Your task to perform on an android device: set the stopwatch Image 0: 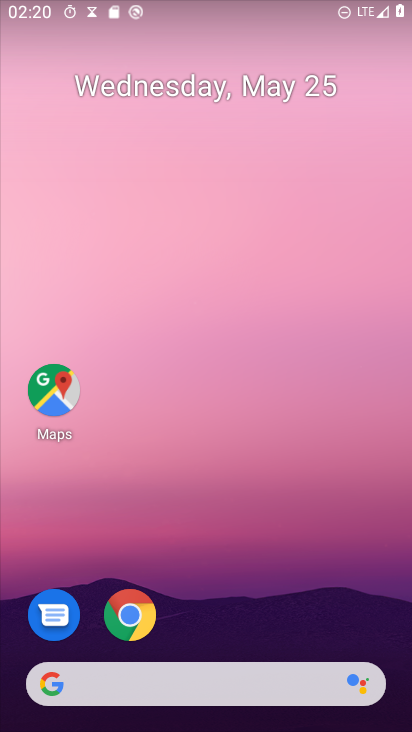
Step 0: drag from (282, 695) to (257, 44)
Your task to perform on an android device: set the stopwatch Image 1: 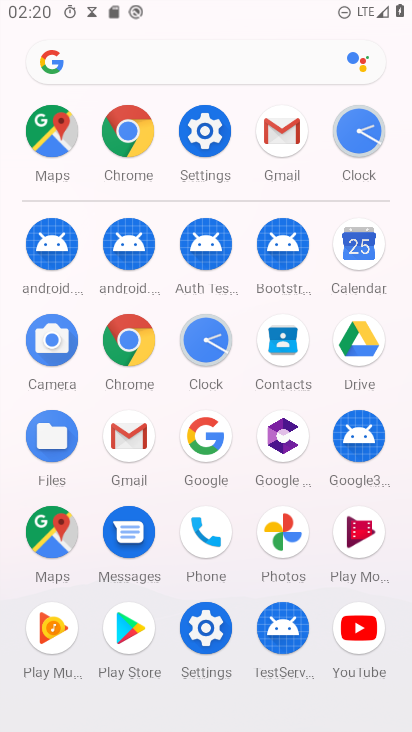
Step 1: click (203, 347)
Your task to perform on an android device: set the stopwatch Image 2: 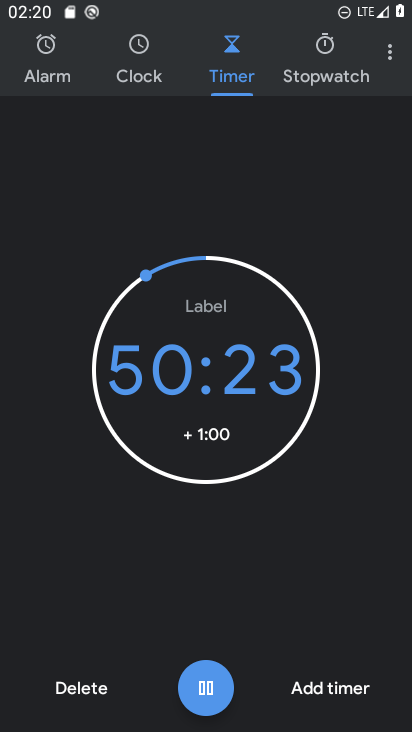
Step 2: click (314, 84)
Your task to perform on an android device: set the stopwatch Image 3: 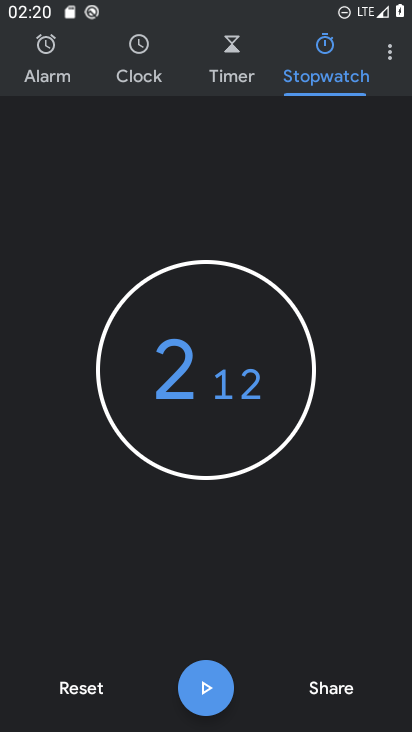
Step 3: click (222, 677)
Your task to perform on an android device: set the stopwatch Image 4: 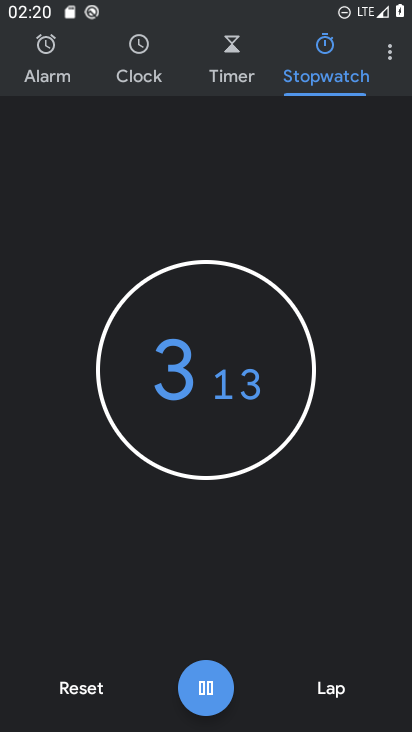
Step 4: click (211, 694)
Your task to perform on an android device: set the stopwatch Image 5: 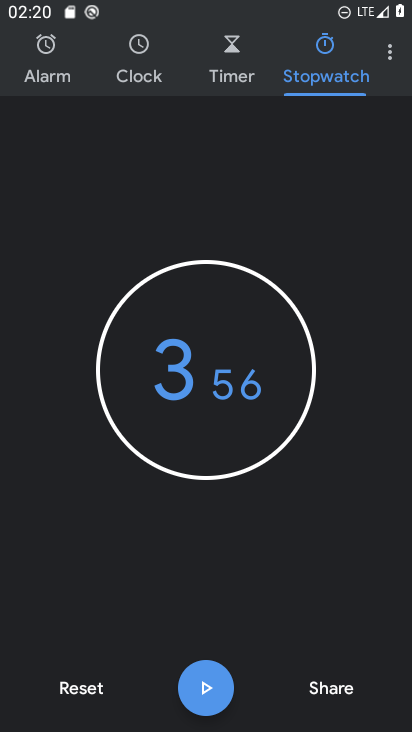
Step 5: task complete